Your task to perform on an android device: Search for vegetarian restaurants on Maps Image 0: 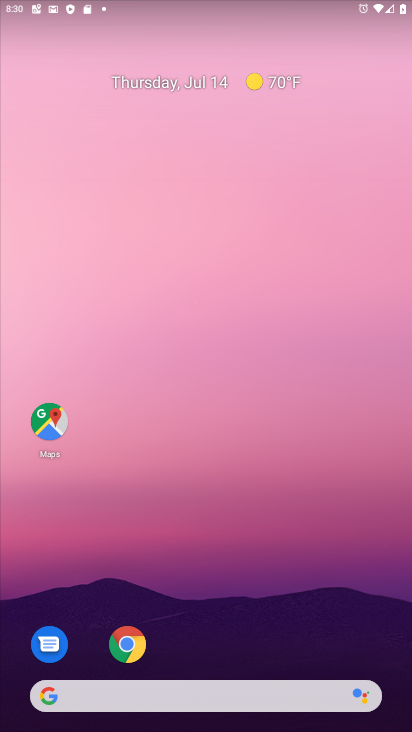
Step 0: drag from (238, 555) to (253, 169)
Your task to perform on an android device: Search for vegetarian restaurants on Maps Image 1: 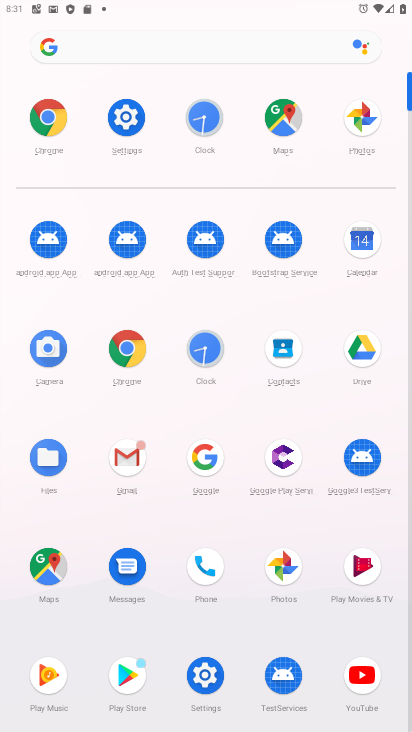
Step 1: click (267, 107)
Your task to perform on an android device: Search for vegetarian restaurants on Maps Image 2: 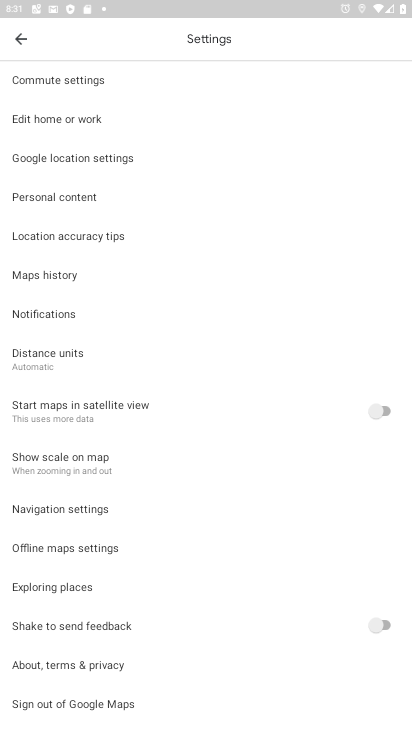
Step 2: click (27, 47)
Your task to perform on an android device: Search for vegetarian restaurants on Maps Image 3: 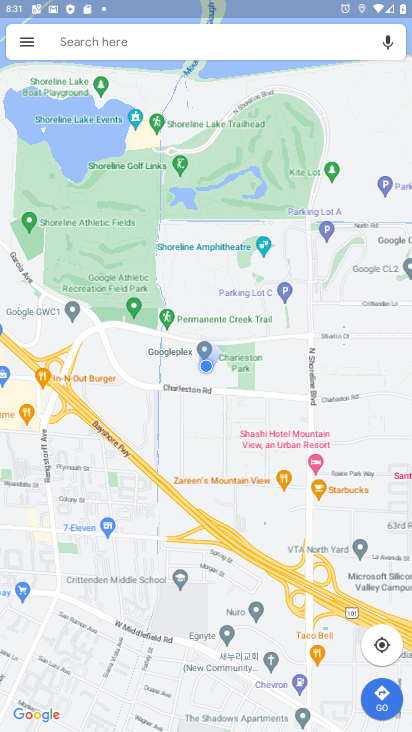
Step 3: click (185, 36)
Your task to perform on an android device: Search for vegetarian restaurants on Maps Image 4: 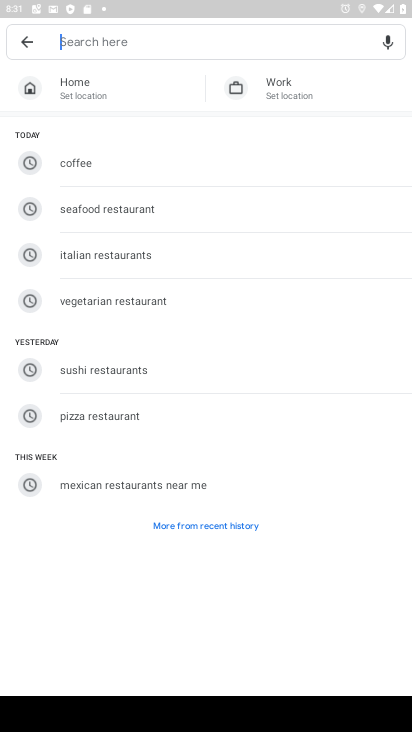
Step 4: type "vegetarian restaurants  "
Your task to perform on an android device: Search for vegetarian restaurants on Maps Image 5: 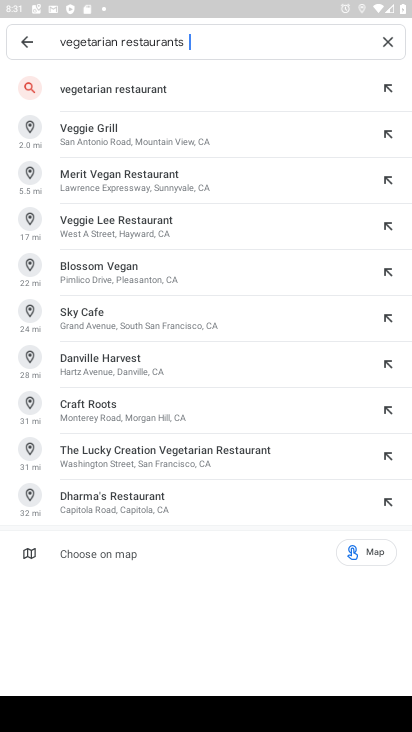
Step 5: click (203, 113)
Your task to perform on an android device: Search for vegetarian restaurants on Maps Image 6: 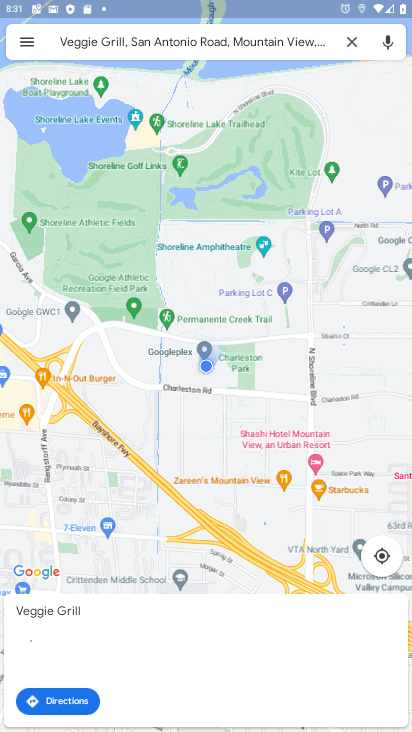
Step 6: click (166, 86)
Your task to perform on an android device: Search for vegetarian restaurants on Maps Image 7: 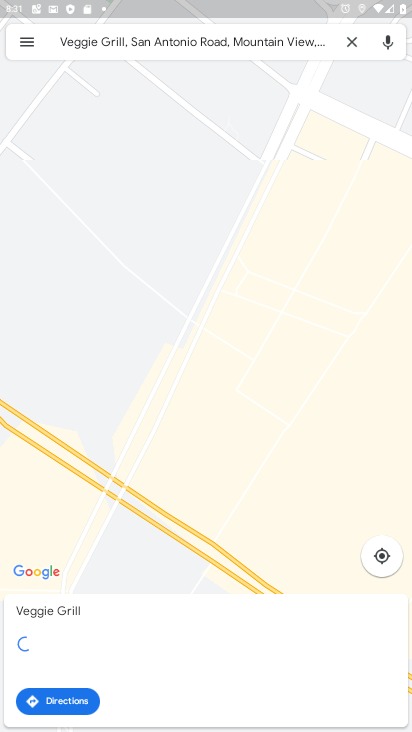
Step 7: click (161, 88)
Your task to perform on an android device: Search for vegetarian restaurants on Maps Image 8: 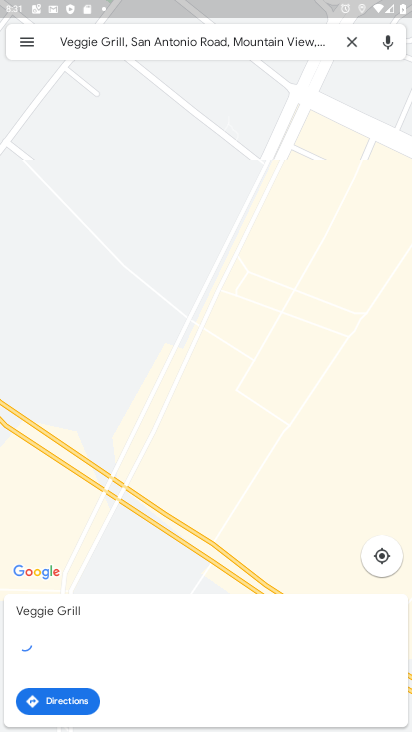
Step 8: click (161, 88)
Your task to perform on an android device: Search for vegetarian restaurants on Maps Image 9: 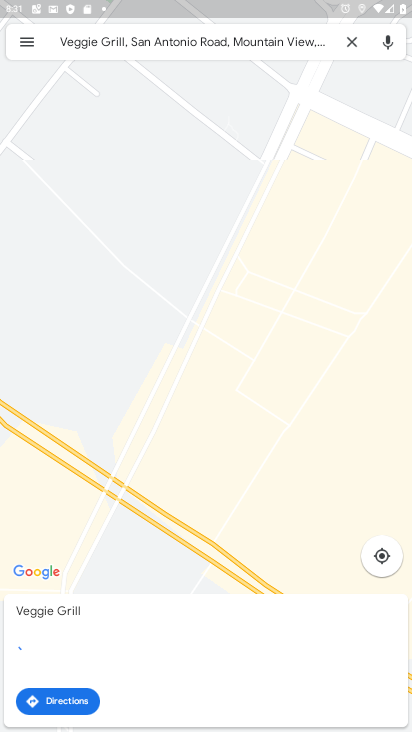
Step 9: click (161, 88)
Your task to perform on an android device: Search for vegetarian restaurants on Maps Image 10: 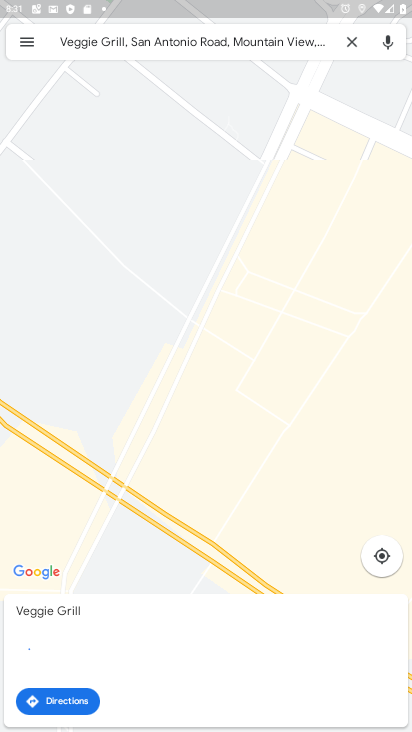
Step 10: click (348, 43)
Your task to perform on an android device: Search for vegetarian restaurants on Maps Image 11: 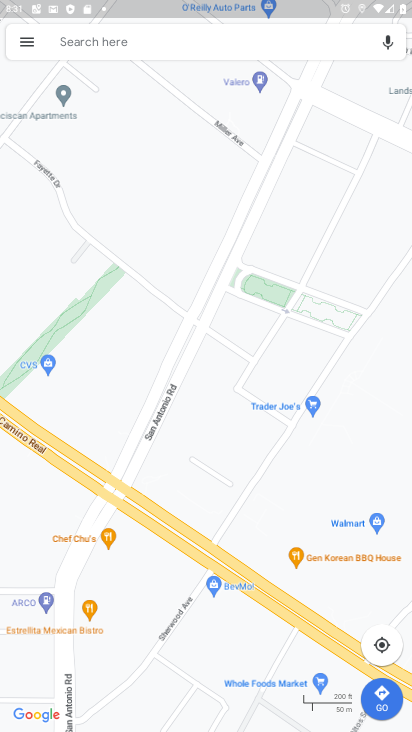
Step 11: click (226, 43)
Your task to perform on an android device: Search for vegetarian restaurants on Maps Image 12: 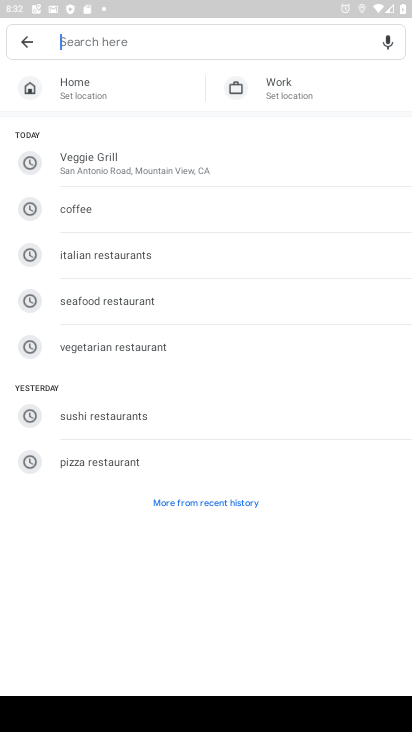
Step 12: click (127, 342)
Your task to perform on an android device: Search for vegetarian restaurants on Maps Image 13: 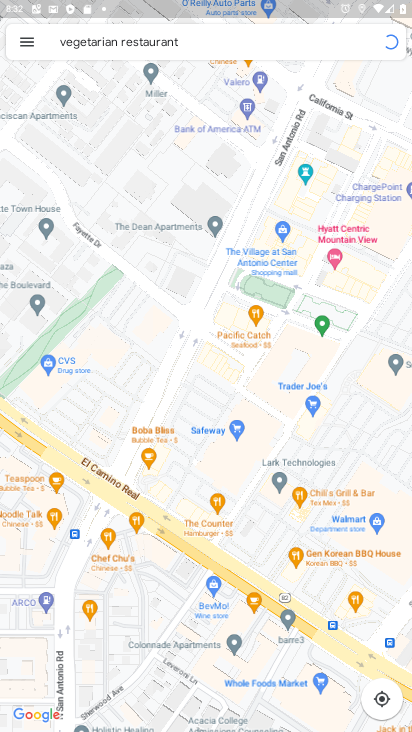
Step 13: task complete